Your task to perform on an android device: see sites visited before in the chrome app Image 0: 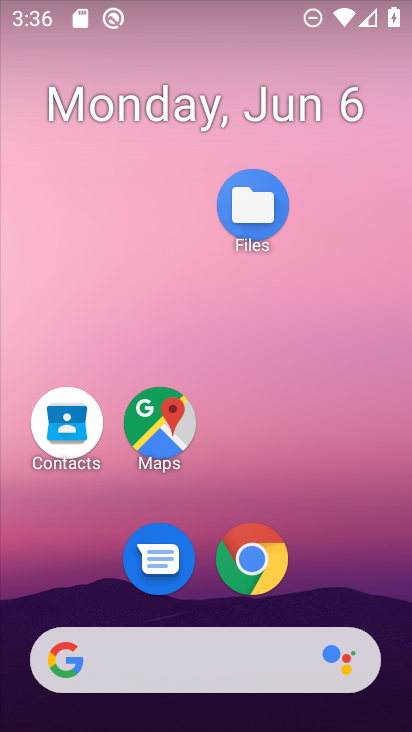
Step 0: drag from (197, 638) to (140, 0)
Your task to perform on an android device: see sites visited before in the chrome app Image 1: 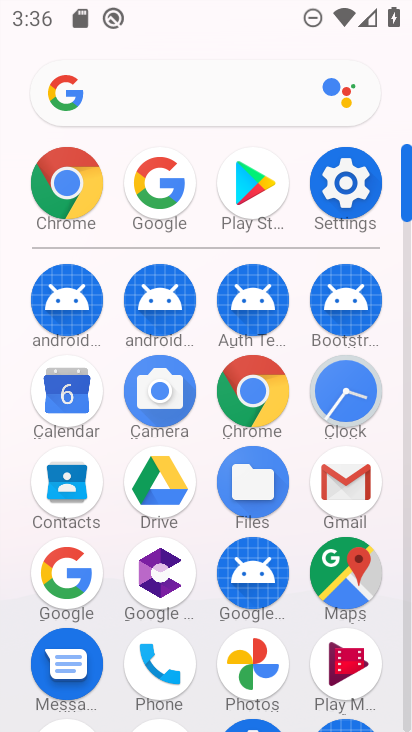
Step 1: click (271, 400)
Your task to perform on an android device: see sites visited before in the chrome app Image 2: 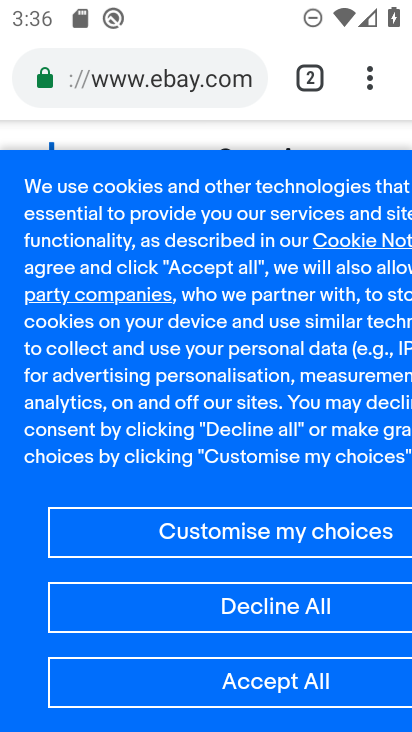
Step 2: click (366, 76)
Your task to perform on an android device: see sites visited before in the chrome app Image 3: 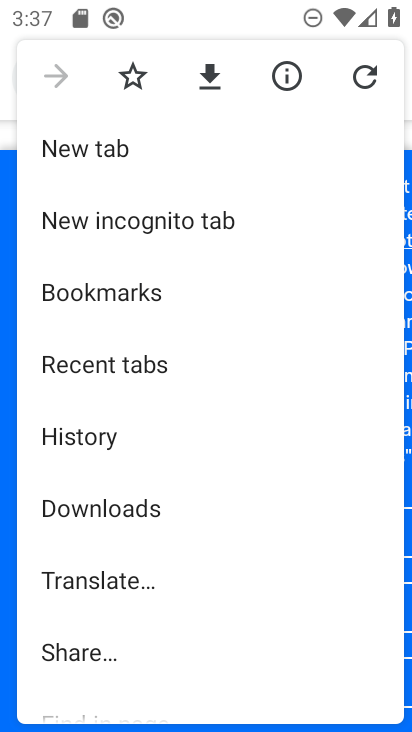
Step 3: click (118, 438)
Your task to perform on an android device: see sites visited before in the chrome app Image 4: 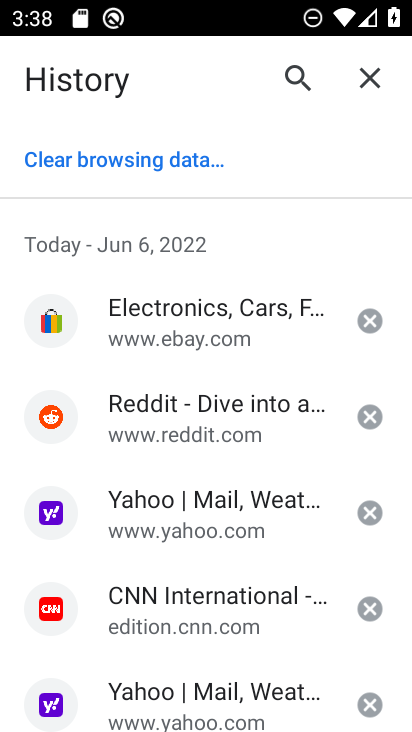
Step 4: task complete